Your task to perform on an android device: What is the news today? Image 0: 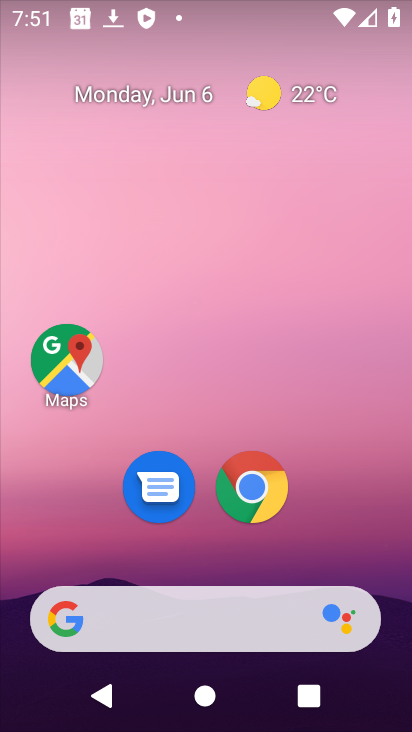
Step 0: drag from (353, 503) to (353, 134)
Your task to perform on an android device: What is the news today? Image 1: 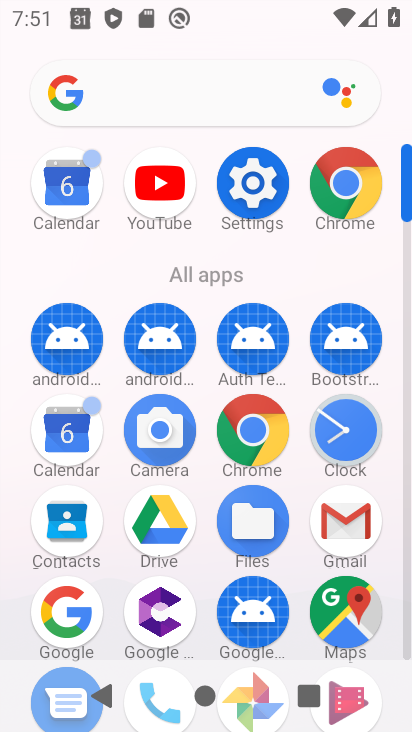
Step 1: click (244, 434)
Your task to perform on an android device: What is the news today? Image 2: 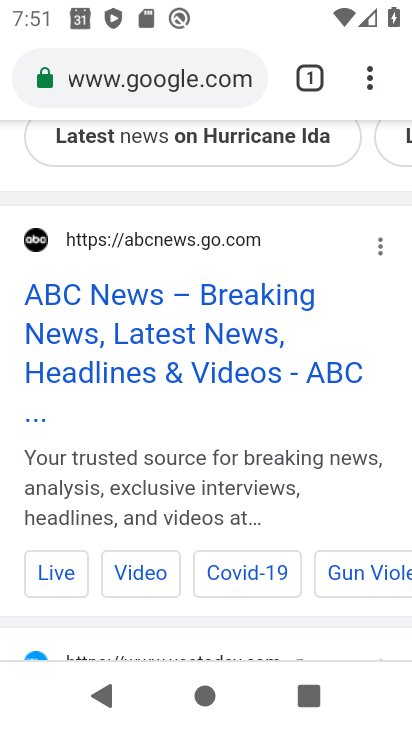
Step 2: click (194, 70)
Your task to perform on an android device: What is the news today? Image 3: 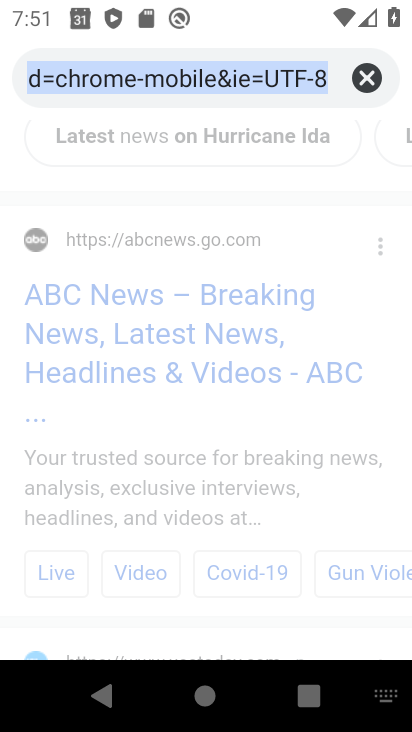
Step 3: click (356, 72)
Your task to perform on an android device: What is the news today? Image 4: 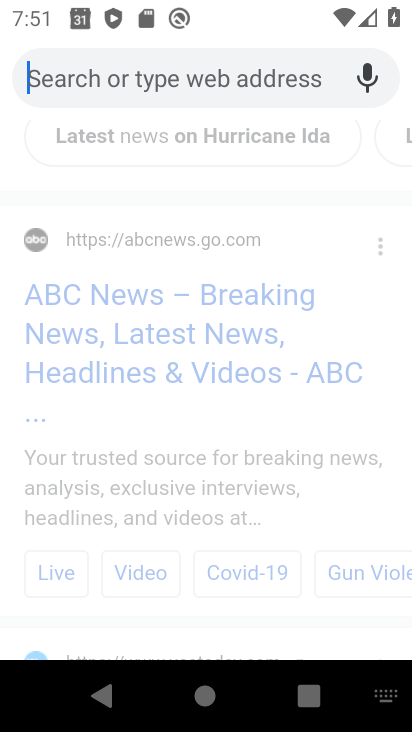
Step 4: type "what is the news today"
Your task to perform on an android device: What is the news today? Image 5: 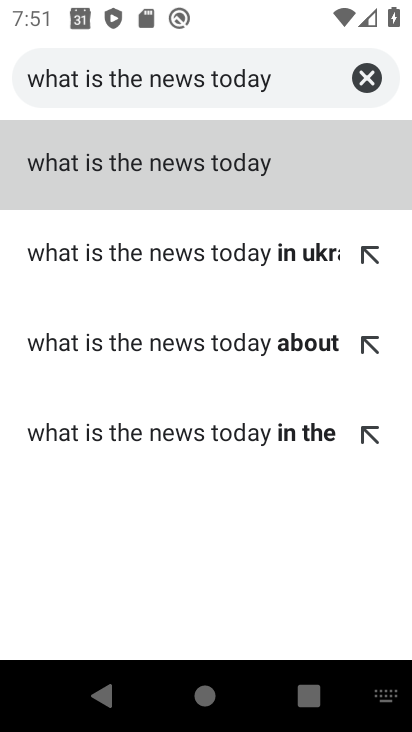
Step 5: click (199, 161)
Your task to perform on an android device: What is the news today? Image 6: 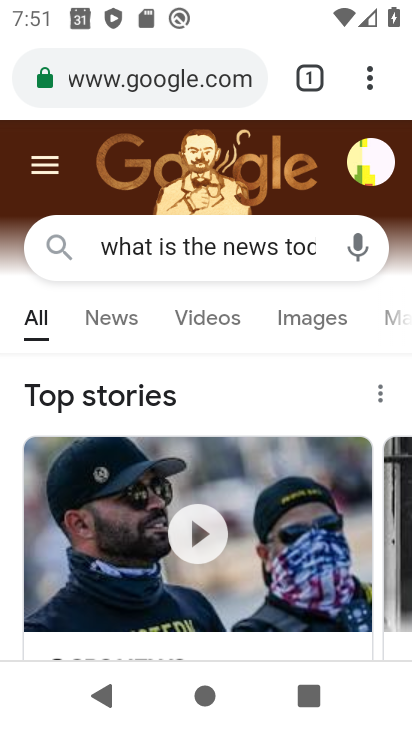
Step 6: task complete